Your task to perform on an android device: Open my contact list Image 0: 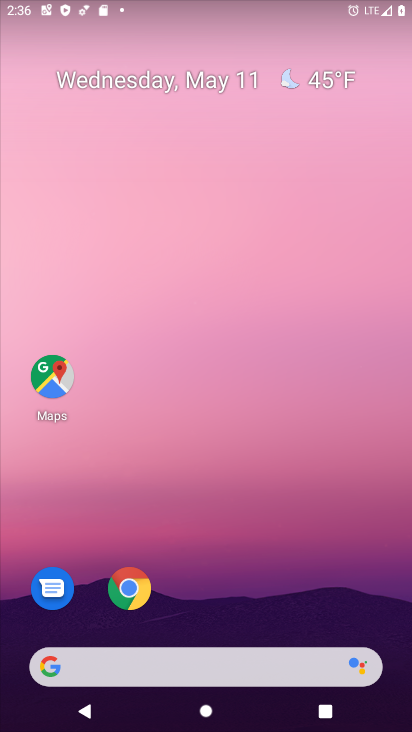
Step 0: drag from (197, 531) to (197, 229)
Your task to perform on an android device: Open my contact list Image 1: 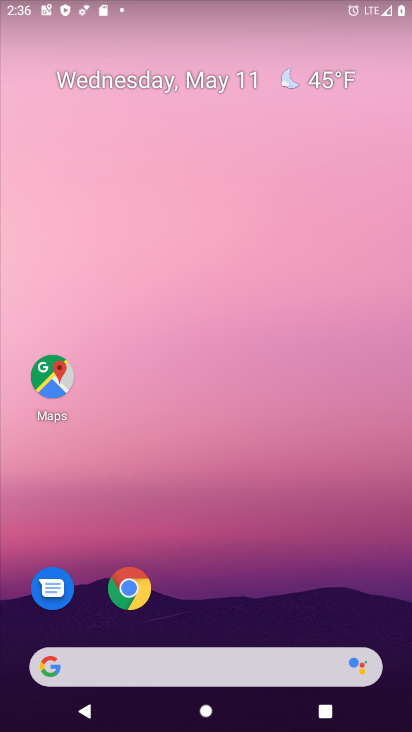
Step 1: drag from (215, 602) to (215, 197)
Your task to perform on an android device: Open my contact list Image 2: 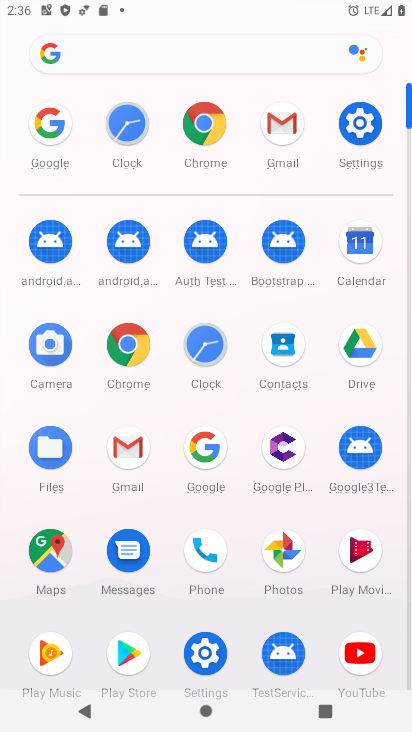
Step 2: click (298, 348)
Your task to perform on an android device: Open my contact list Image 3: 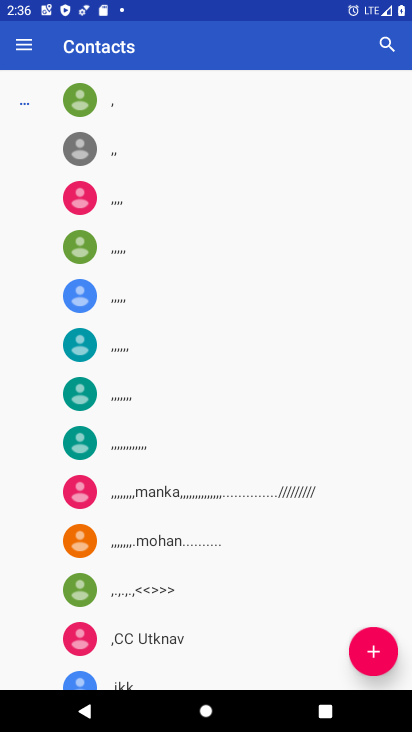
Step 3: task complete